Your task to perform on an android device: set the stopwatch Image 0: 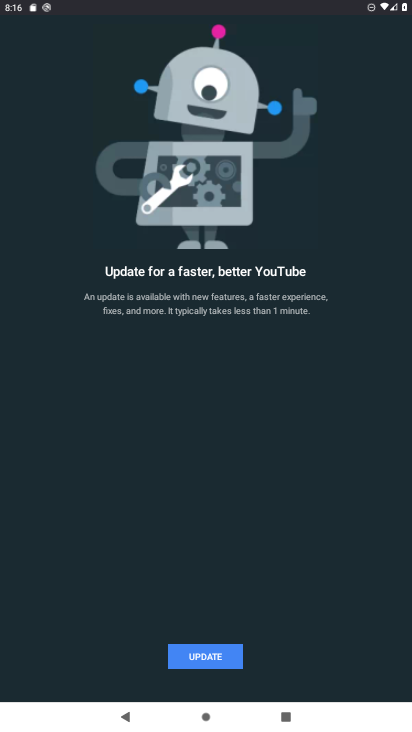
Step 0: press back button
Your task to perform on an android device: set the stopwatch Image 1: 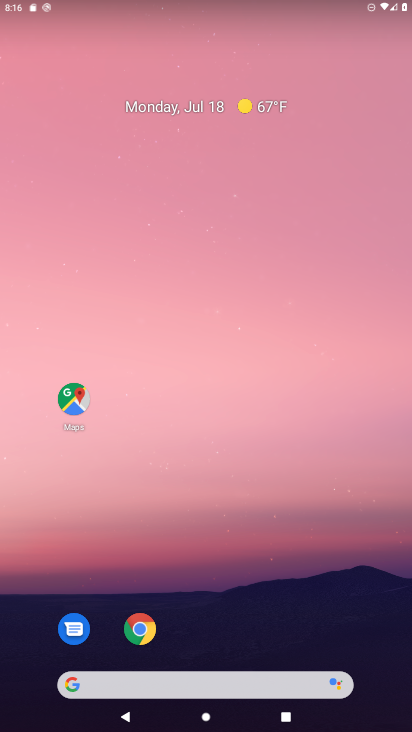
Step 1: drag from (203, 661) to (244, 117)
Your task to perform on an android device: set the stopwatch Image 2: 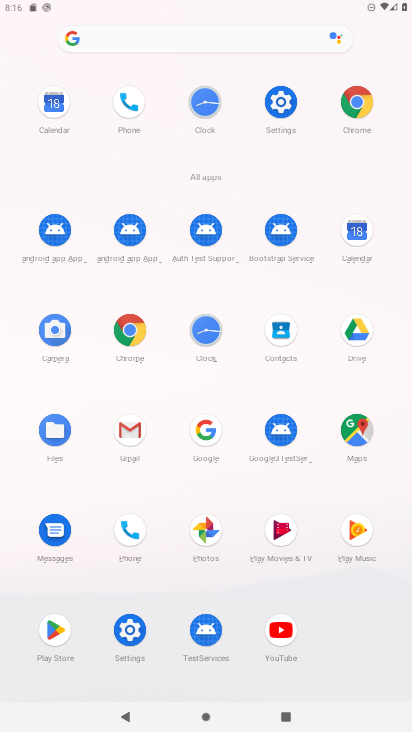
Step 2: click (196, 329)
Your task to perform on an android device: set the stopwatch Image 3: 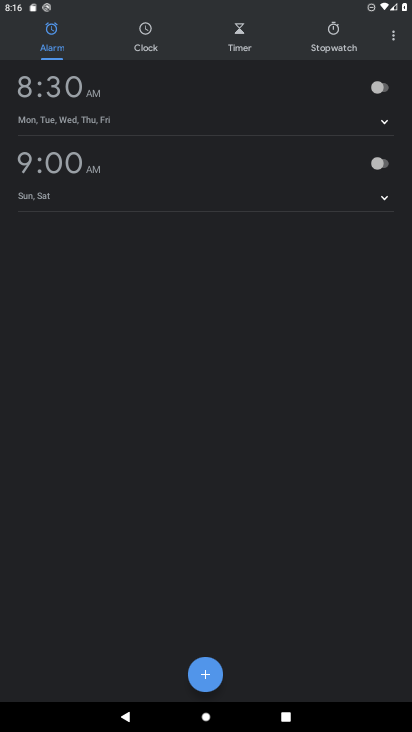
Step 3: click (333, 40)
Your task to perform on an android device: set the stopwatch Image 4: 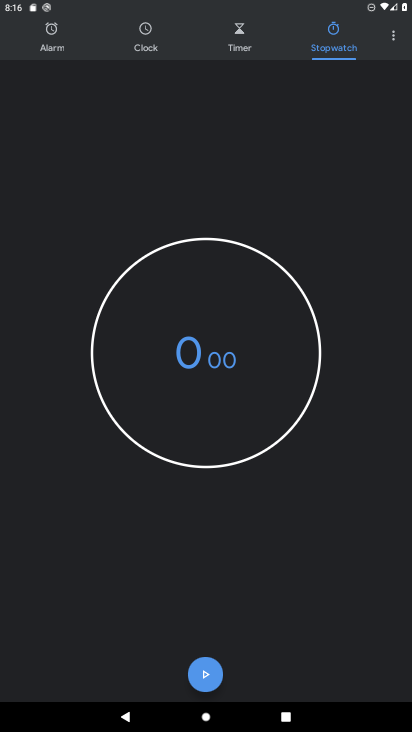
Step 4: click (205, 680)
Your task to perform on an android device: set the stopwatch Image 5: 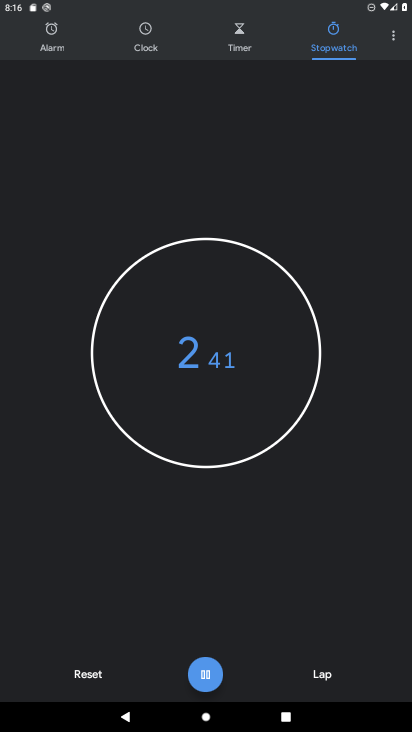
Step 5: click (207, 680)
Your task to perform on an android device: set the stopwatch Image 6: 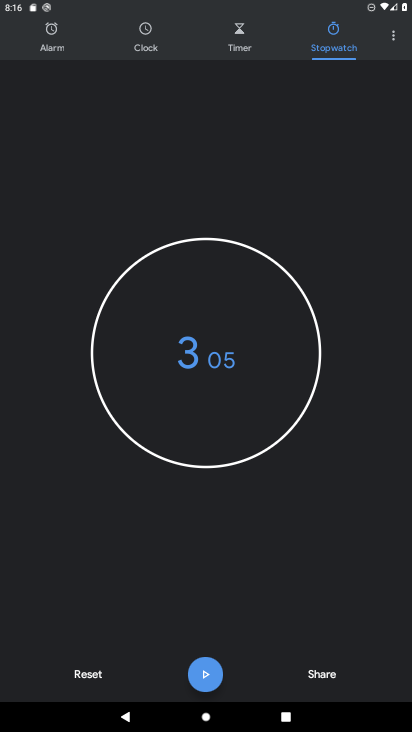
Step 6: task complete